Your task to perform on an android device: Open Google Maps Image 0: 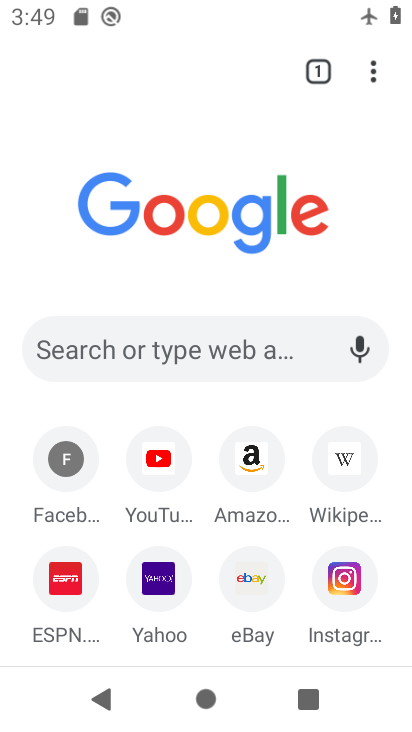
Step 0: press home button
Your task to perform on an android device: Open Google Maps Image 1: 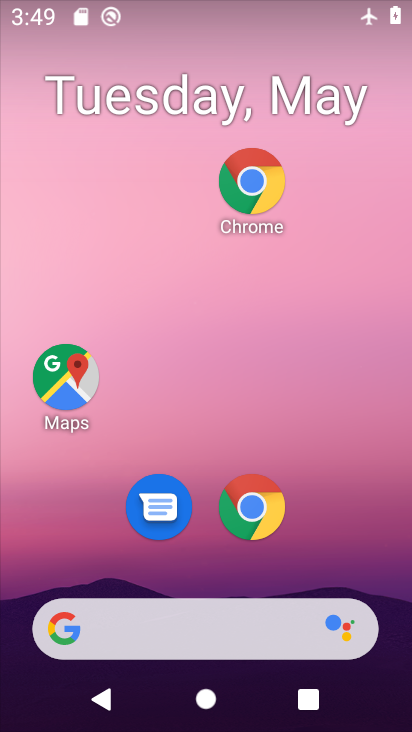
Step 1: drag from (348, 501) to (320, 181)
Your task to perform on an android device: Open Google Maps Image 2: 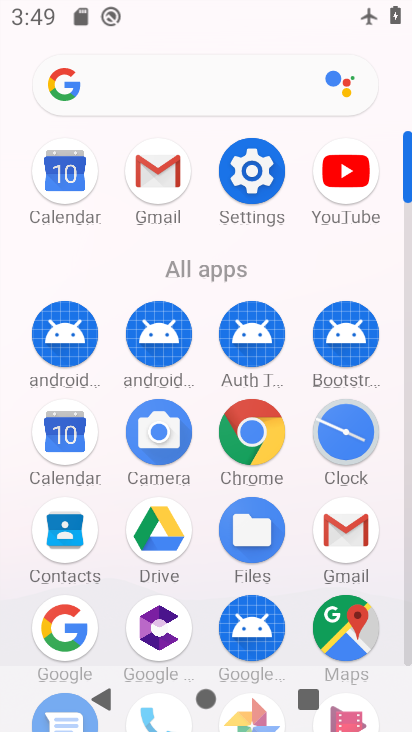
Step 2: click (367, 637)
Your task to perform on an android device: Open Google Maps Image 3: 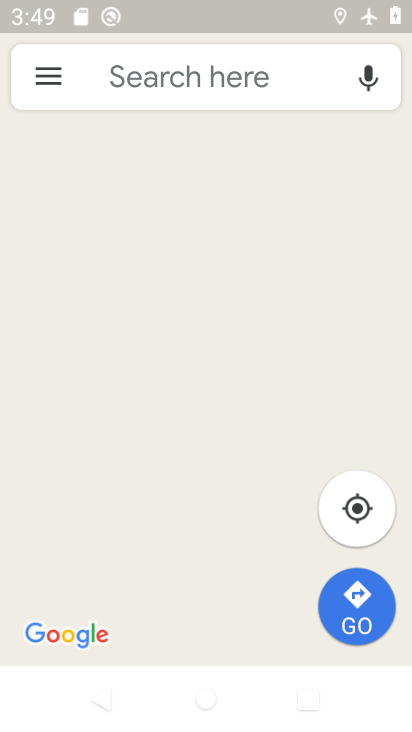
Step 3: task complete